Your task to perform on an android device: Check the news Image 0: 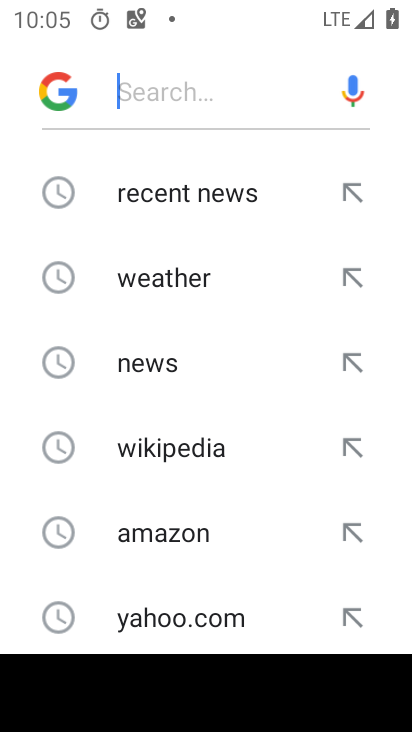
Step 0: click (127, 362)
Your task to perform on an android device: Check the news Image 1: 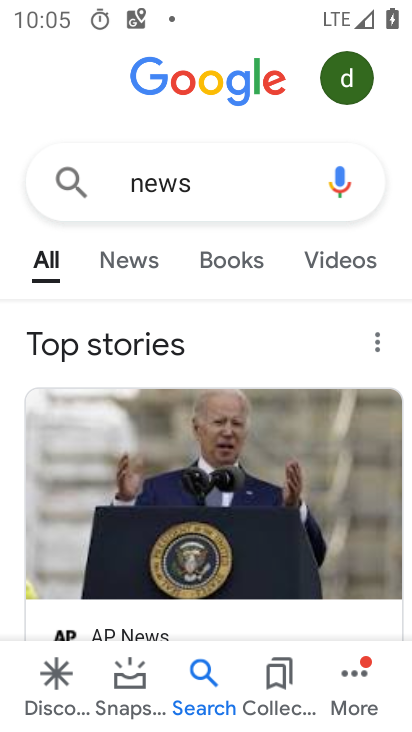
Step 1: task complete